Your task to perform on an android device: star an email in the gmail app Image 0: 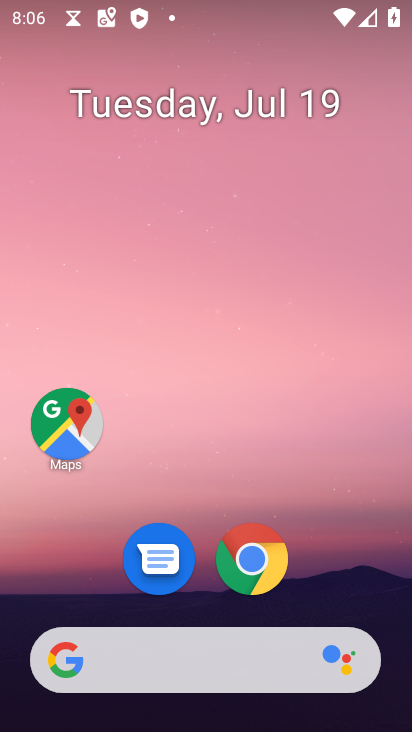
Step 0: drag from (115, 481) to (232, 10)
Your task to perform on an android device: star an email in the gmail app Image 1: 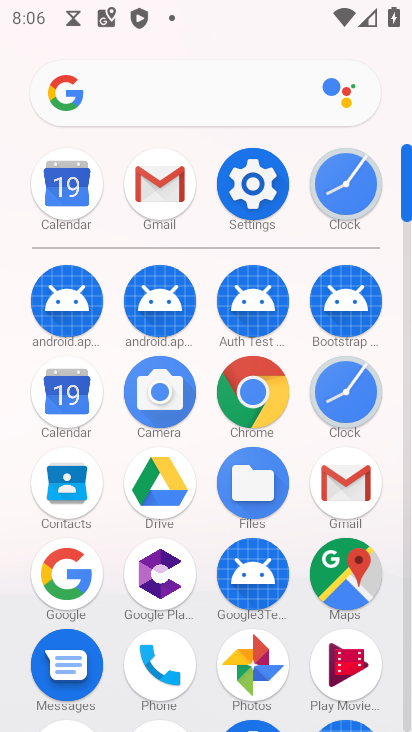
Step 1: click (144, 184)
Your task to perform on an android device: star an email in the gmail app Image 2: 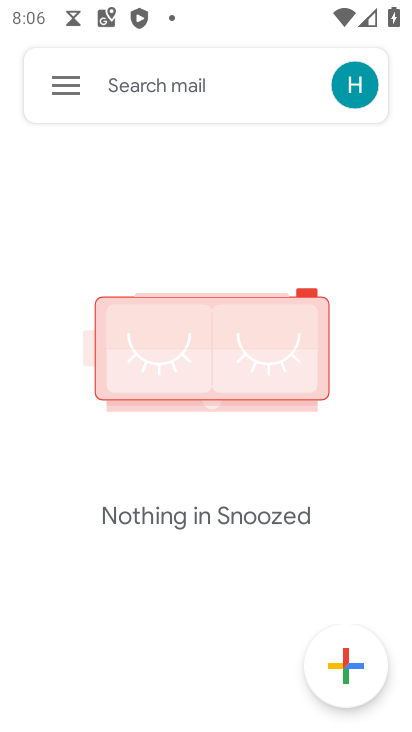
Step 2: click (75, 92)
Your task to perform on an android device: star an email in the gmail app Image 3: 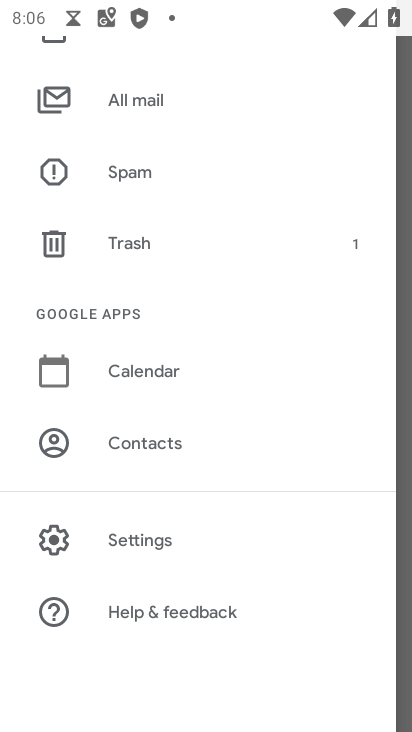
Step 3: click (229, 92)
Your task to perform on an android device: star an email in the gmail app Image 4: 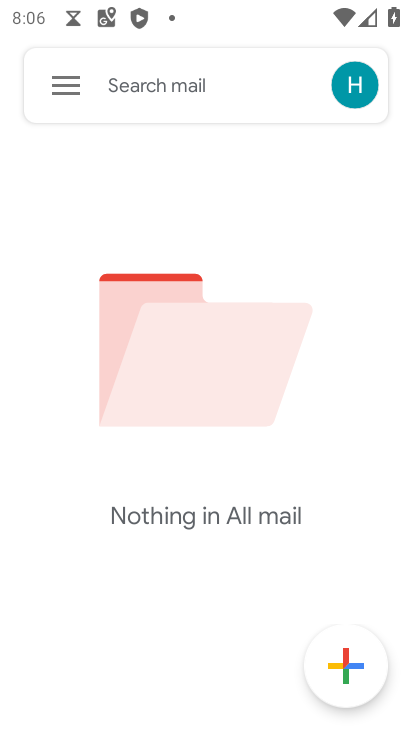
Step 4: task complete